Your task to perform on an android device: Open Youtube and go to the subscriptions tab Image 0: 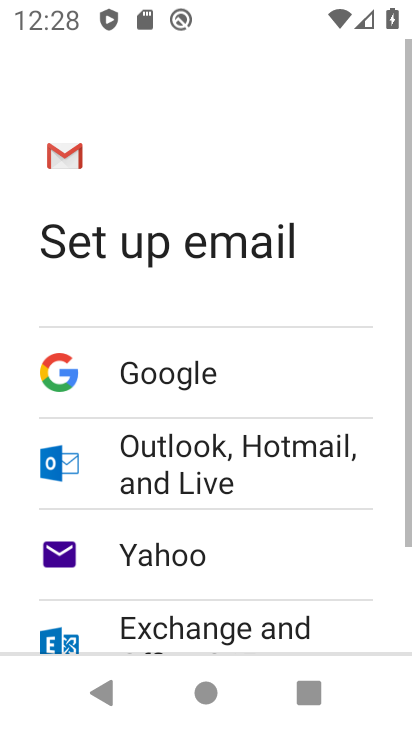
Step 0: press home button
Your task to perform on an android device: Open Youtube and go to the subscriptions tab Image 1: 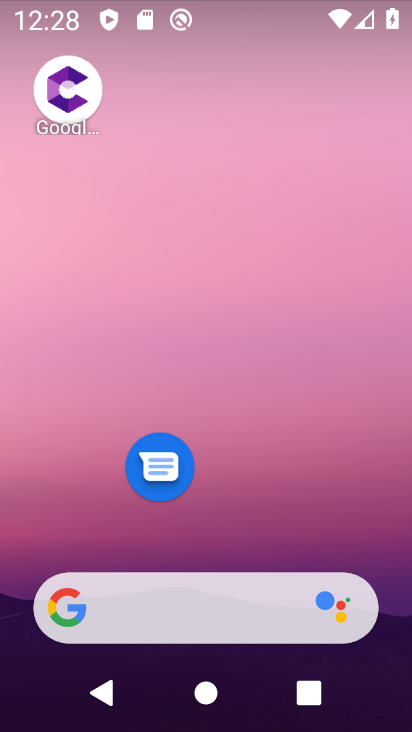
Step 1: drag from (273, 553) to (341, 114)
Your task to perform on an android device: Open Youtube and go to the subscriptions tab Image 2: 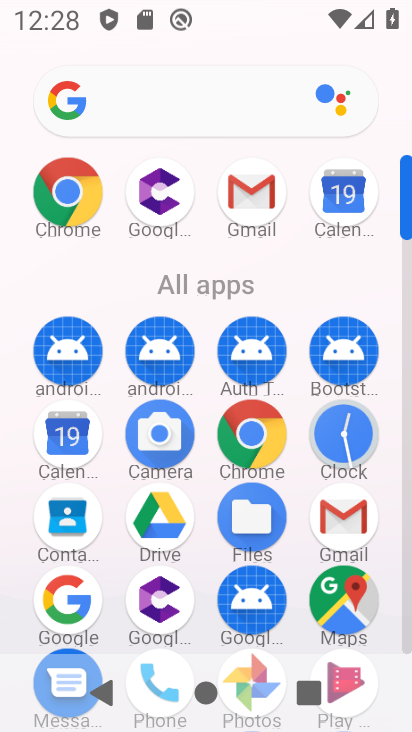
Step 2: drag from (345, 597) to (374, 203)
Your task to perform on an android device: Open Youtube and go to the subscriptions tab Image 3: 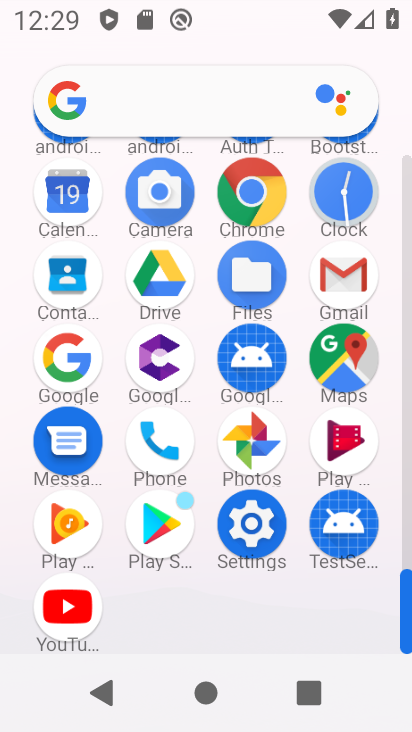
Step 3: click (70, 612)
Your task to perform on an android device: Open Youtube and go to the subscriptions tab Image 4: 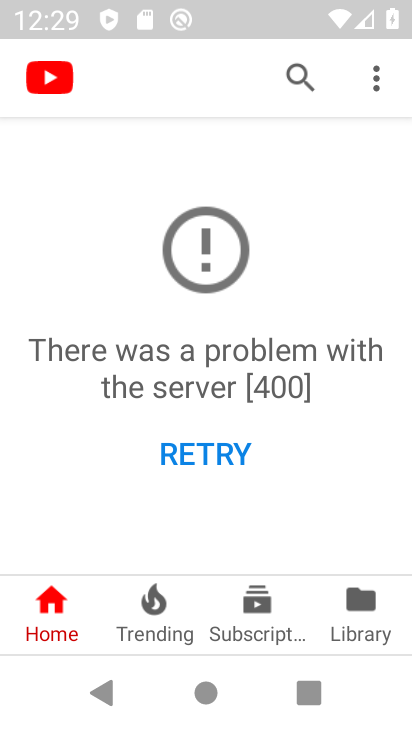
Step 4: click (257, 594)
Your task to perform on an android device: Open Youtube and go to the subscriptions tab Image 5: 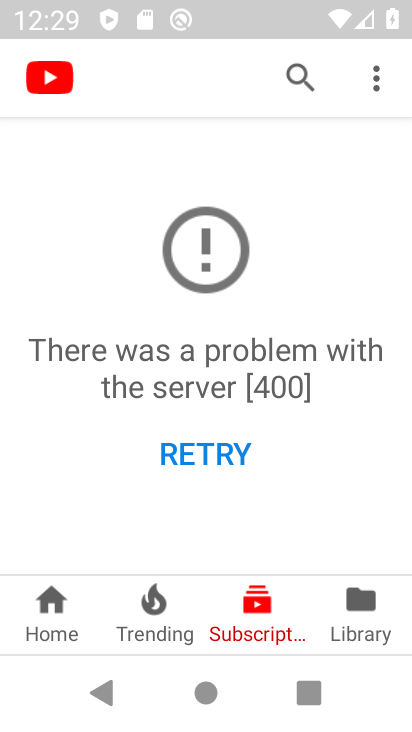
Step 5: task complete